Your task to perform on an android device: What is the news today? Image 0: 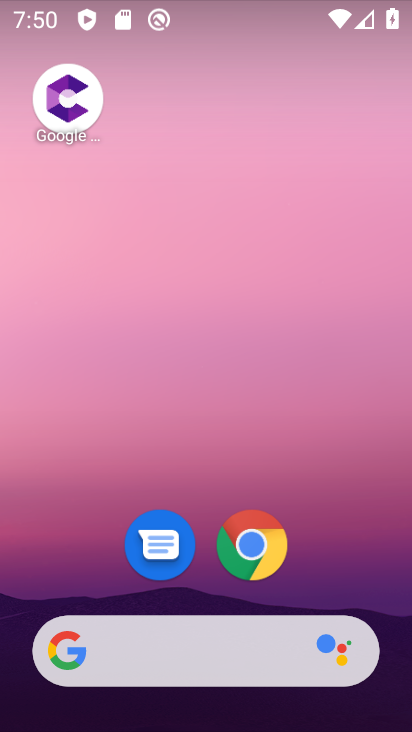
Step 0: click (207, 644)
Your task to perform on an android device: What is the news today? Image 1: 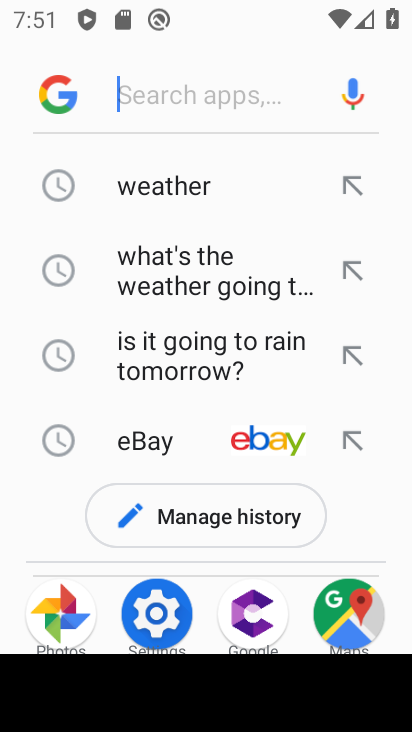
Step 1: type "news today"
Your task to perform on an android device: What is the news today? Image 2: 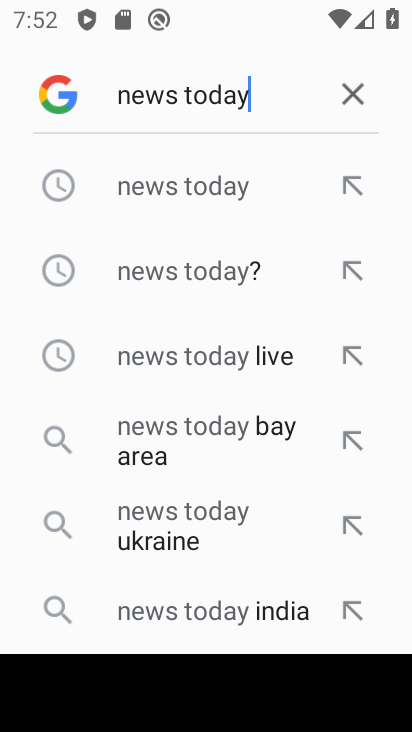
Step 2: click (238, 277)
Your task to perform on an android device: What is the news today? Image 3: 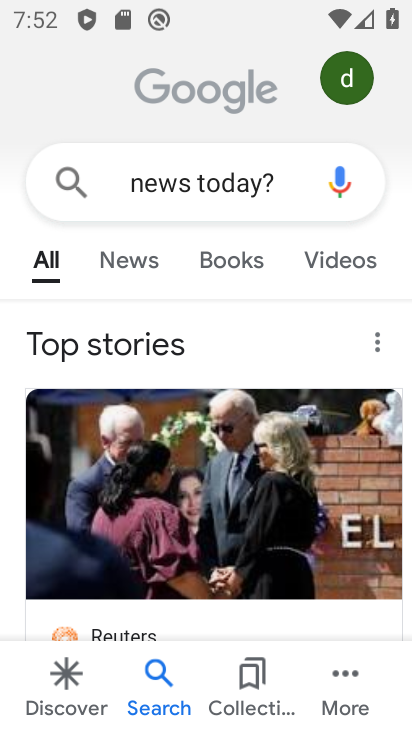
Step 3: click (139, 262)
Your task to perform on an android device: What is the news today? Image 4: 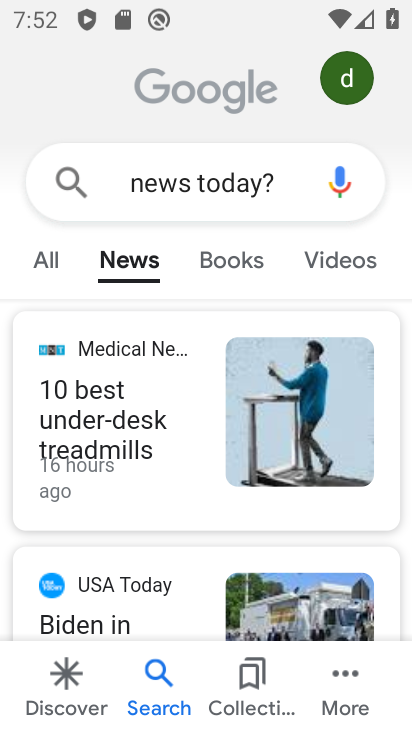
Step 4: task complete